Your task to perform on an android device: turn off improve location accuracy Image 0: 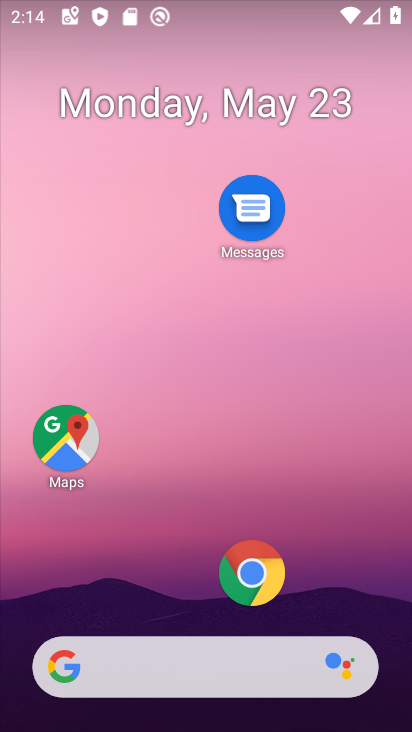
Step 0: drag from (208, 666) to (274, 6)
Your task to perform on an android device: turn off improve location accuracy Image 1: 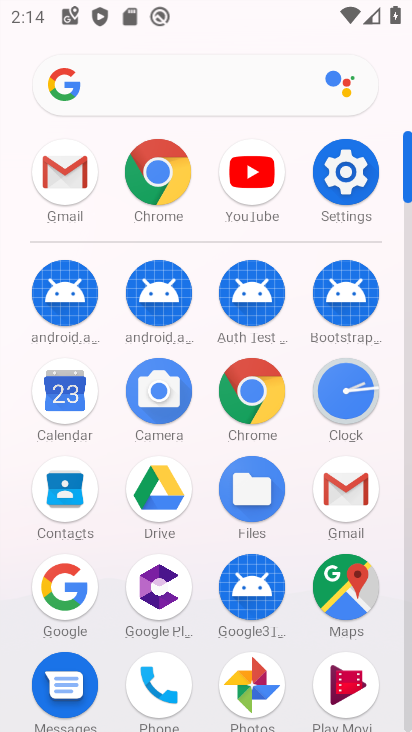
Step 1: click (344, 175)
Your task to perform on an android device: turn off improve location accuracy Image 2: 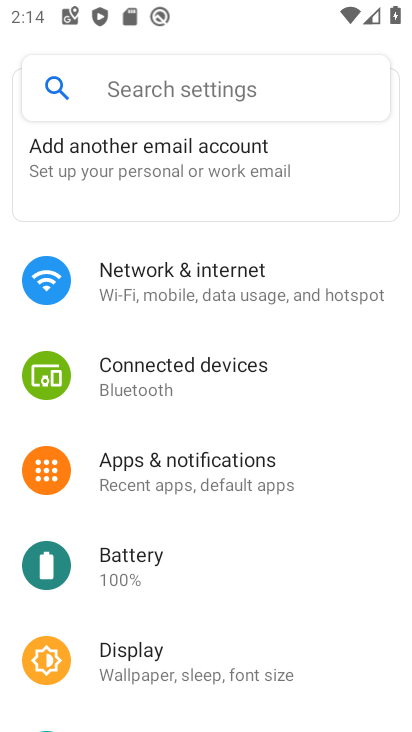
Step 2: drag from (264, 690) to (274, 12)
Your task to perform on an android device: turn off improve location accuracy Image 3: 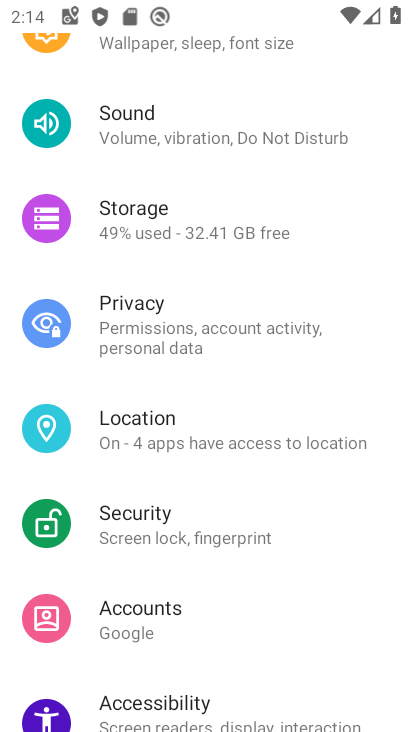
Step 3: click (239, 434)
Your task to perform on an android device: turn off improve location accuracy Image 4: 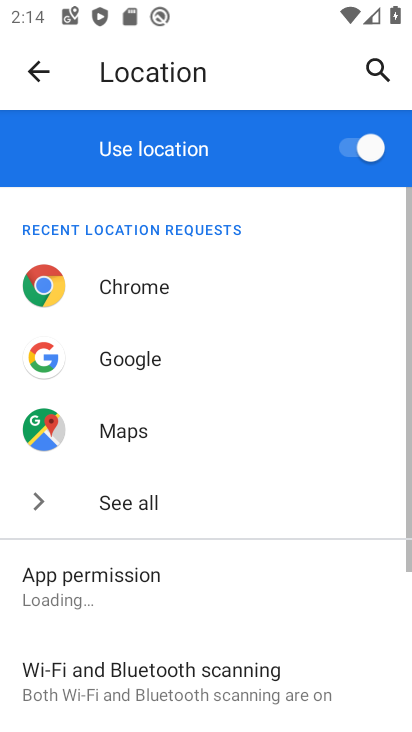
Step 4: drag from (271, 642) to (206, 48)
Your task to perform on an android device: turn off improve location accuracy Image 5: 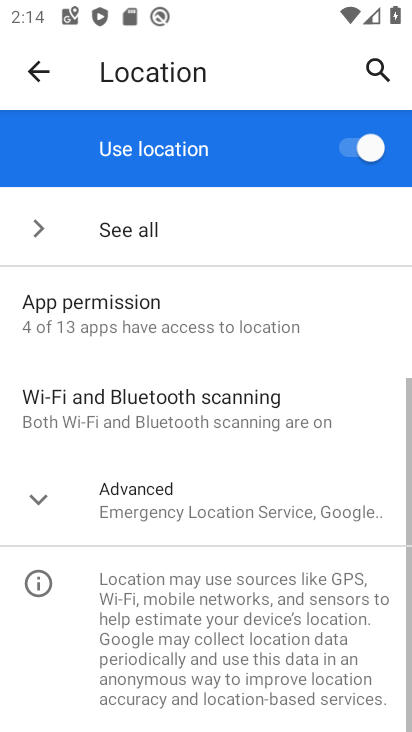
Step 5: click (259, 494)
Your task to perform on an android device: turn off improve location accuracy Image 6: 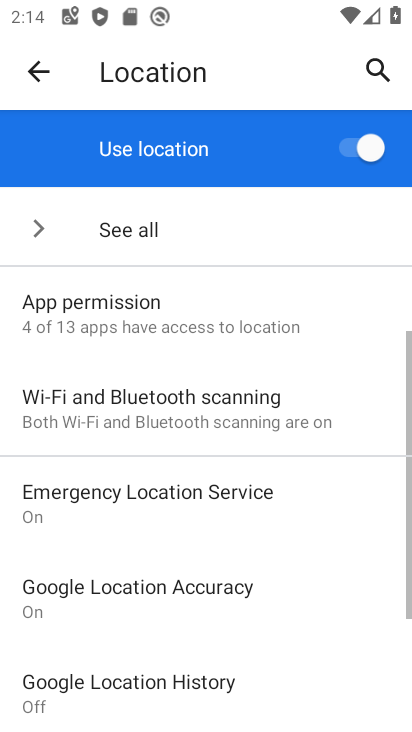
Step 6: drag from (261, 655) to (273, 279)
Your task to perform on an android device: turn off improve location accuracy Image 7: 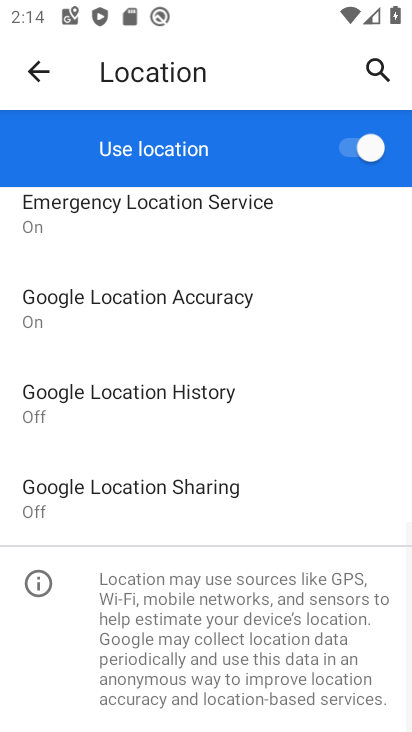
Step 7: click (236, 304)
Your task to perform on an android device: turn off improve location accuracy Image 8: 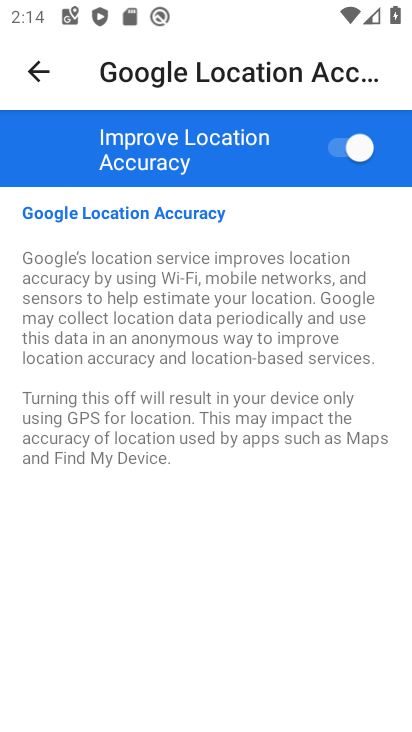
Step 8: click (326, 143)
Your task to perform on an android device: turn off improve location accuracy Image 9: 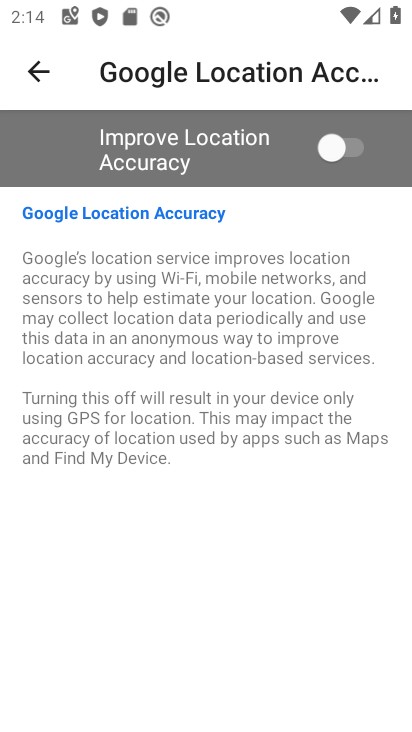
Step 9: task complete